Your task to perform on an android device: refresh tabs in the chrome app Image 0: 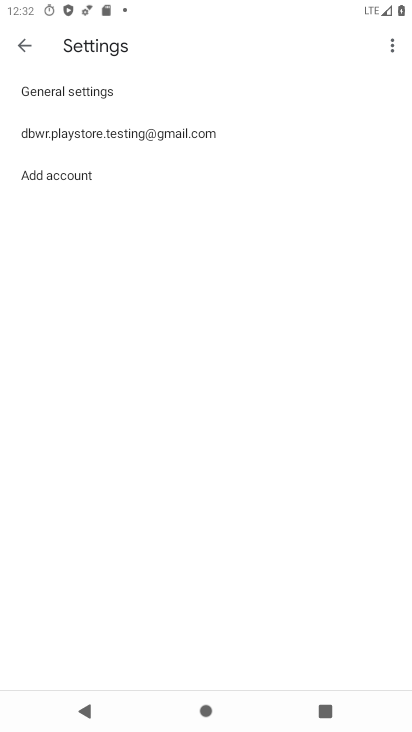
Step 0: press home button
Your task to perform on an android device: refresh tabs in the chrome app Image 1: 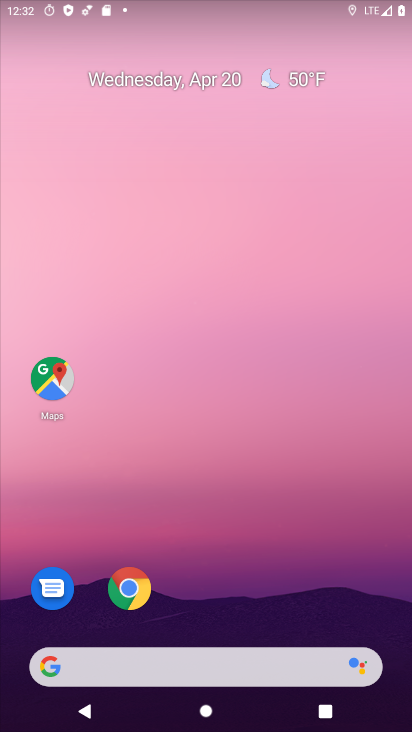
Step 1: click (137, 579)
Your task to perform on an android device: refresh tabs in the chrome app Image 2: 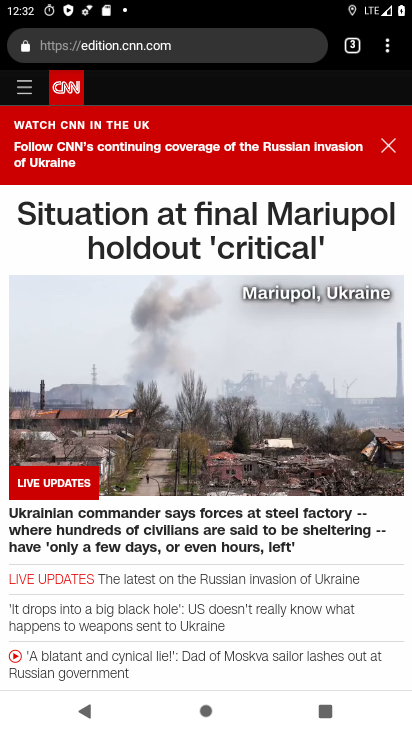
Step 2: click (385, 43)
Your task to perform on an android device: refresh tabs in the chrome app Image 3: 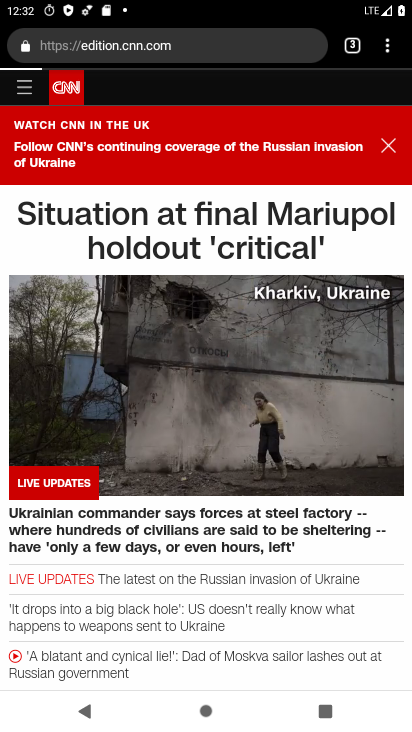
Step 3: click (382, 46)
Your task to perform on an android device: refresh tabs in the chrome app Image 4: 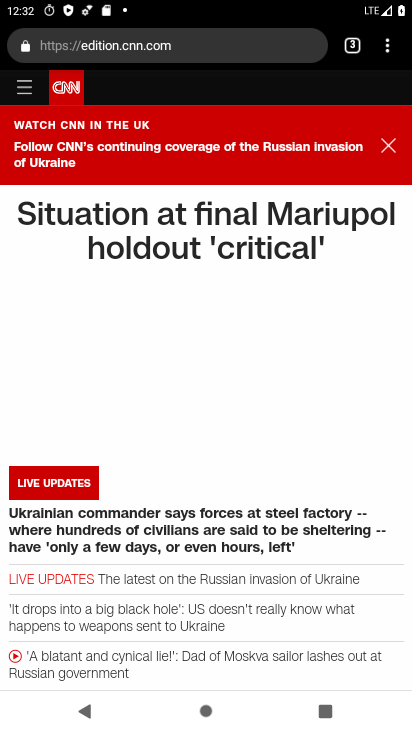
Step 4: task complete